Your task to perform on an android device: turn off smart reply in the gmail app Image 0: 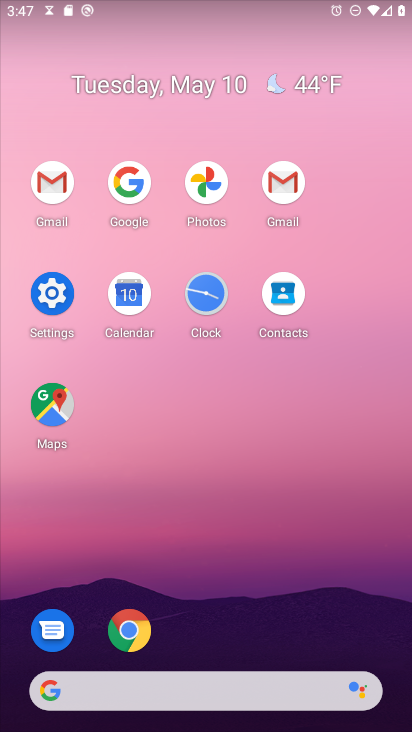
Step 0: click (287, 188)
Your task to perform on an android device: turn off smart reply in the gmail app Image 1: 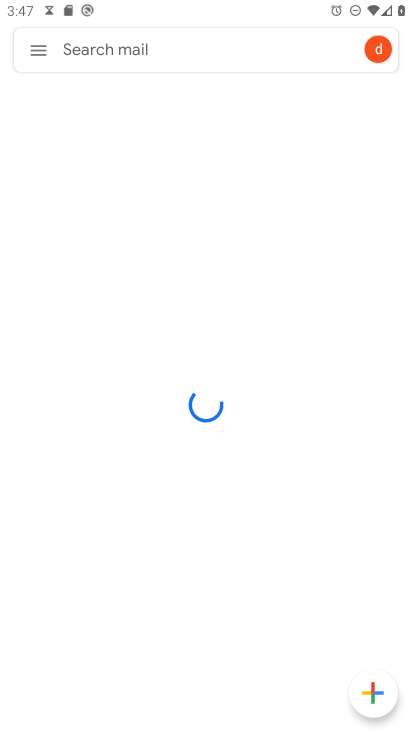
Step 1: click (36, 45)
Your task to perform on an android device: turn off smart reply in the gmail app Image 2: 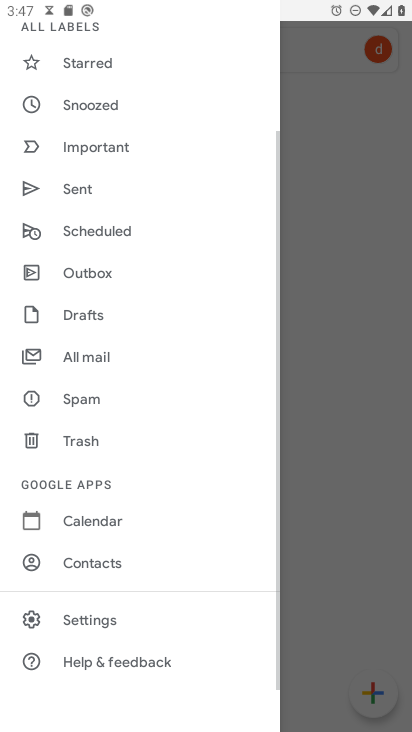
Step 2: click (153, 612)
Your task to perform on an android device: turn off smart reply in the gmail app Image 3: 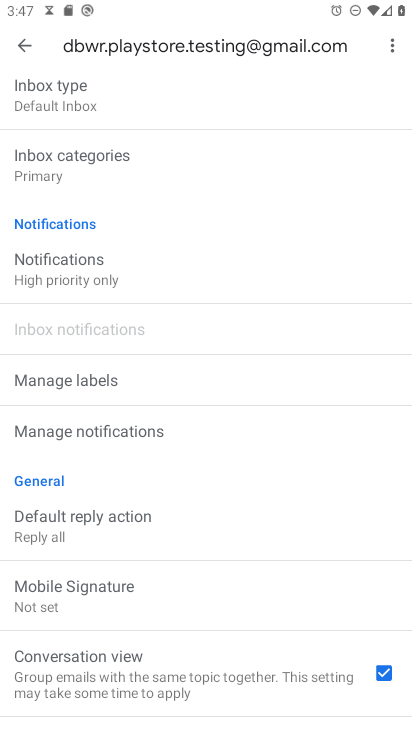
Step 3: drag from (238, 508) to (280, 153)
Your task to perform on an android device: turn off smart reply in the gmail app Image 4: 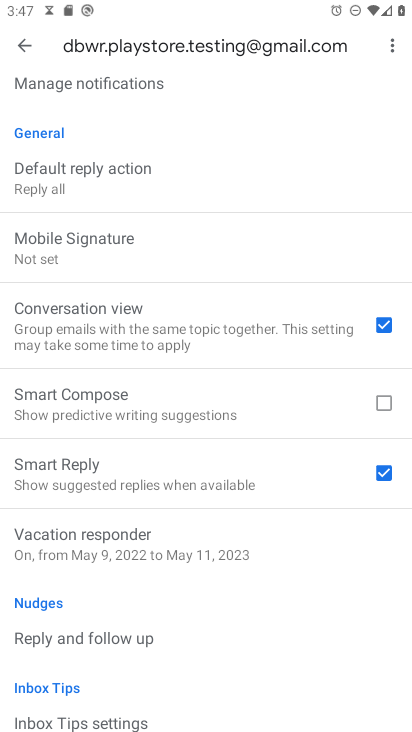
Step 4: click (380, 475)
Your task to perform on an android device: turn off smart reply in the gmail app Image 5: 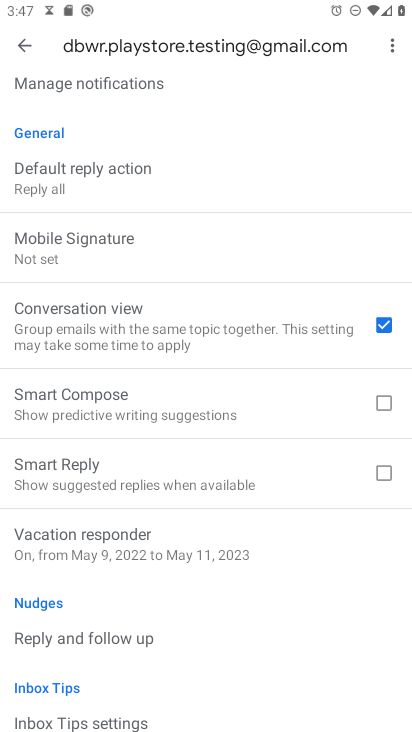
Step 5: task complete